Your task to perform on an android device: Open settings Image 0: 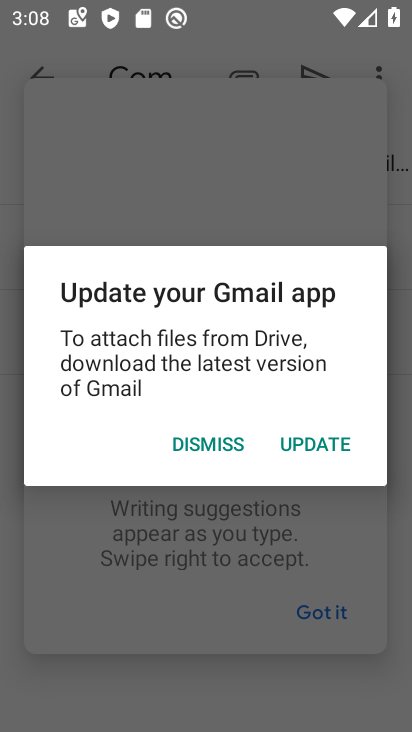
Step 0: press home button
Your task to perform on an android device: Open settings Image 1: 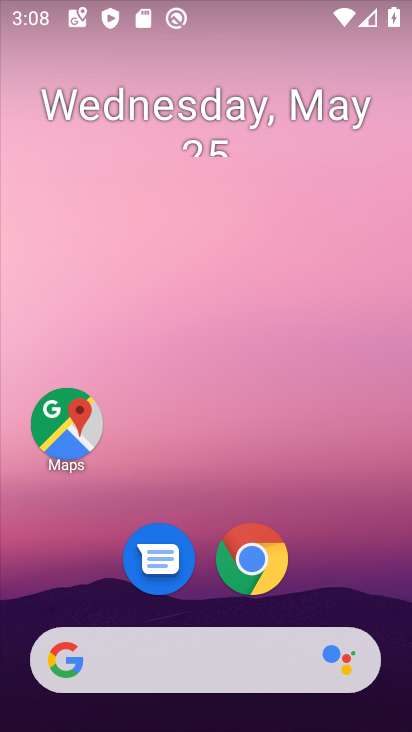
Step 1: drag from (212, 595) to (240, 141)
Your task to perform on an android device: Open settings Image 2: 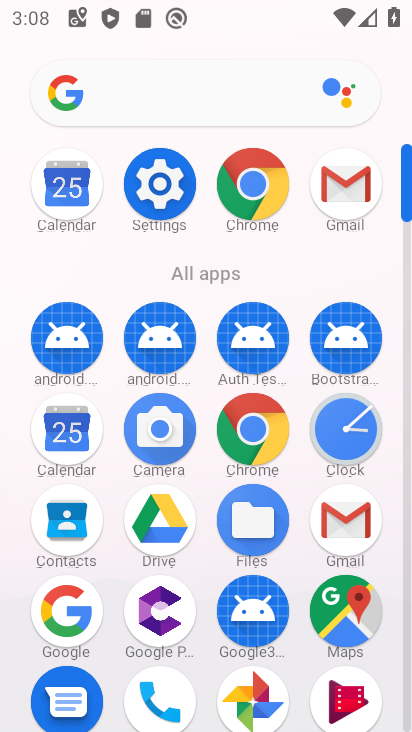
Step 2: click (155, 178)
Your task to perform on an android device: Open settings Image 3: 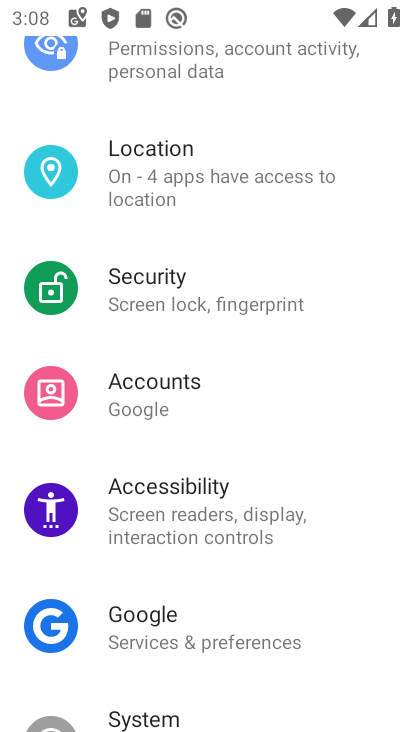
Step 3: task complete